Your task to perform on an android device: Search for Mexican restaurants on Maps Image 0: 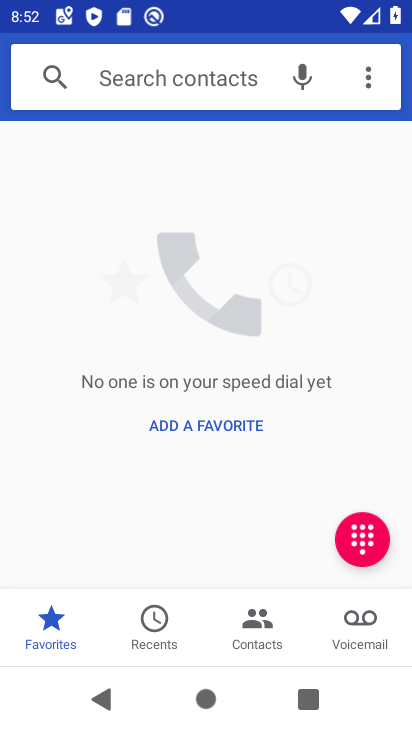
Step 0: press home button
Your task to perform on an android device: Search for Mexican restaurants on Maps Image 1: 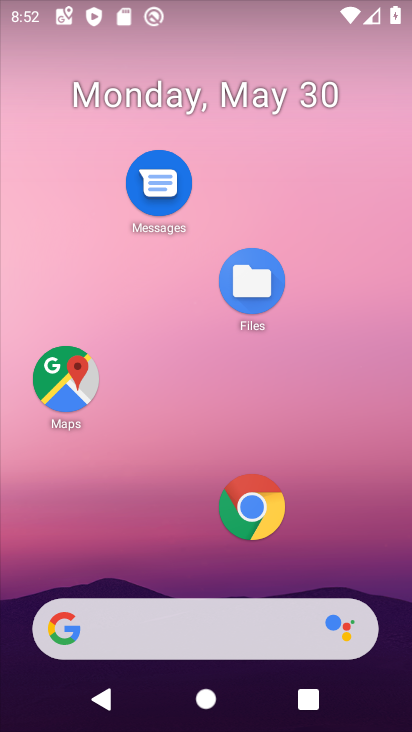
Step 1: click (63, 368)
Your task to perform on an android device: Search for Mexican restaurants on Maps Image 2: 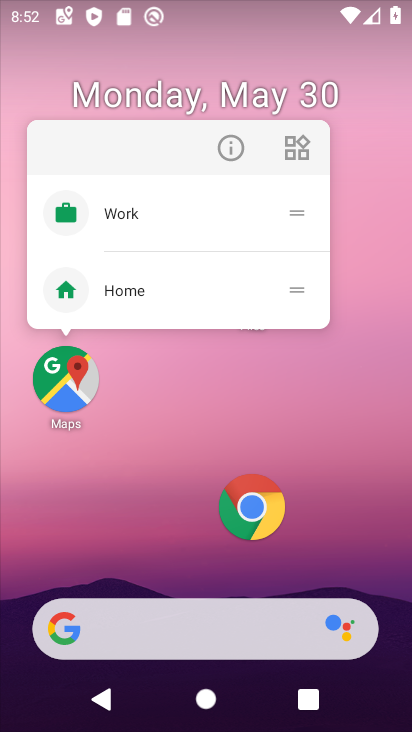
Step 2: click (65, 369)
Your task to perform on an android device: Search for Mexican restaurants on Maps Image 3: 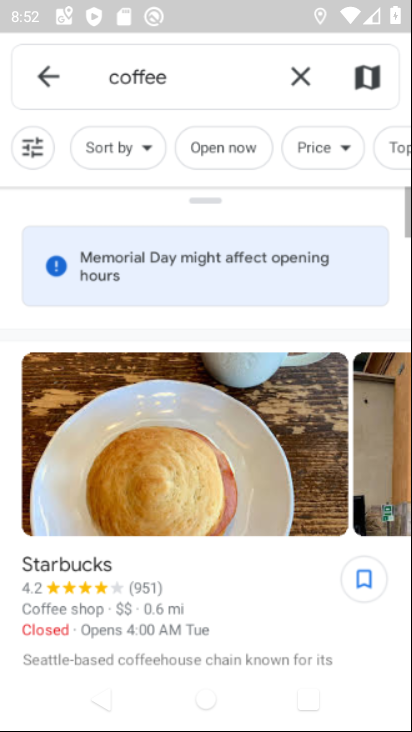
Step 3: click (301, 79)
Your task to perform on an android device: Search for Mexican restaurants on Maps Image 4: 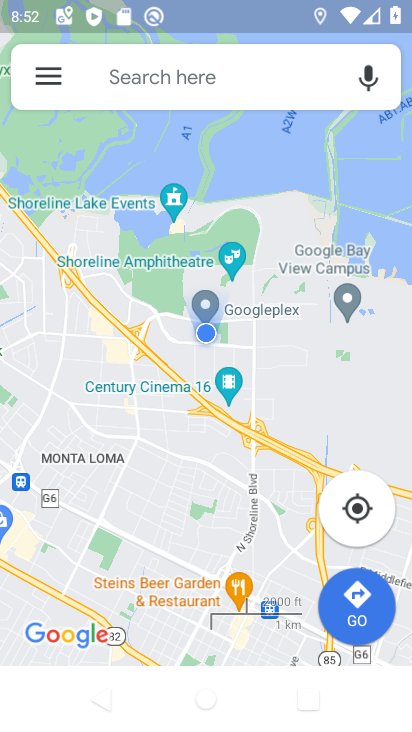
Step 4: click (231, 80)
Your task to perform on an android device: Search for Mexican restaurants on Maps Image 5: 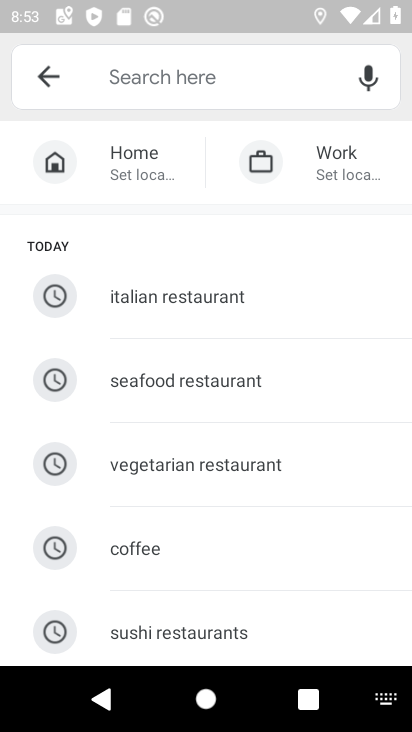
Step 5: type "Mexican restaurants"
Your task to perform on an android device: Search for Mexican restaurants on Maps Image 6: 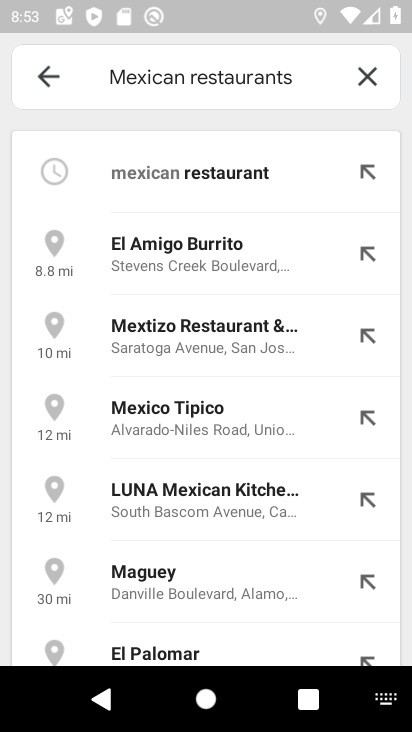
Step 6: click (156, 173)
Your task to perform on an android device: Search for Mexican restaurants on Maps Image 7: 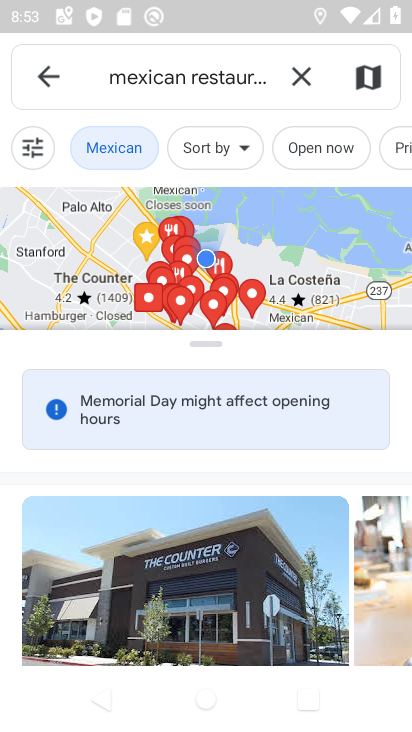
Step 7: task complete